Your task to perform on an android device: What's on my calendar tomorrow? Image 0: 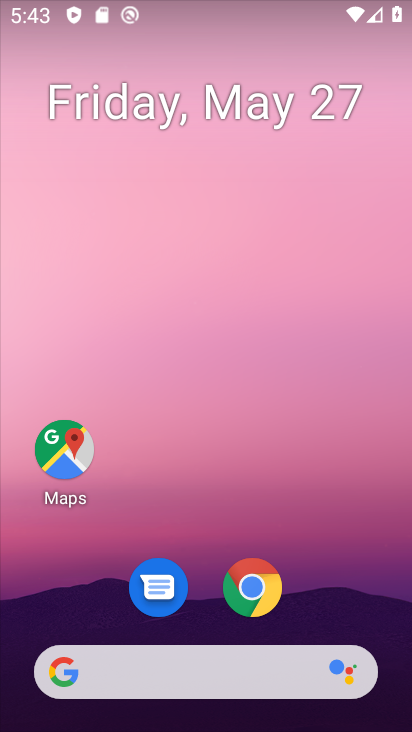
Step 0: drag from (306, 629) to (356, 19)
Your task to perform on an android device: What's on my calendar tomorrow? Image 1: 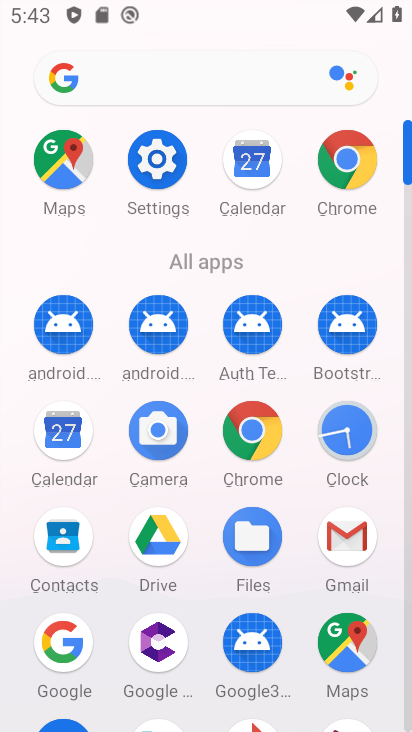
Step 1: click (80, 429)
Your task to perform on an android device: What's on my calendar tomorrow? Image 2: 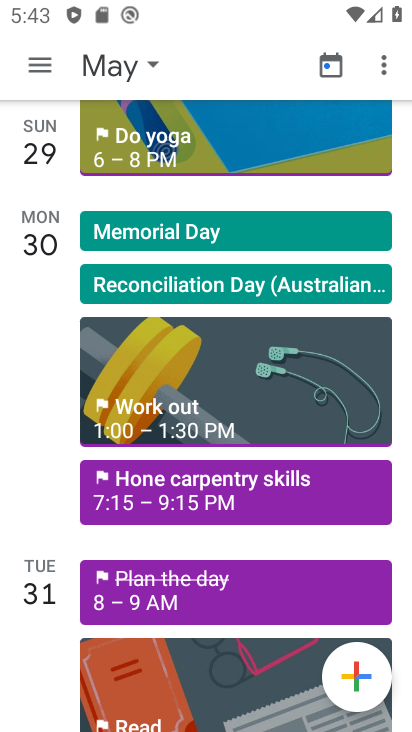
Step 2: click (109, 54)
Your task to perform on an android device: What's on my calendar tomorrow? Image 3: 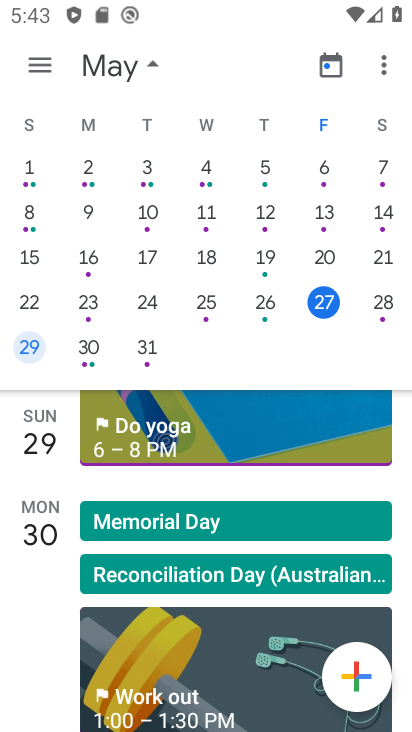
Step 3: click (394, 300)
Your task to perform on an android device: What's on my calendar tomorrow? Image 4: 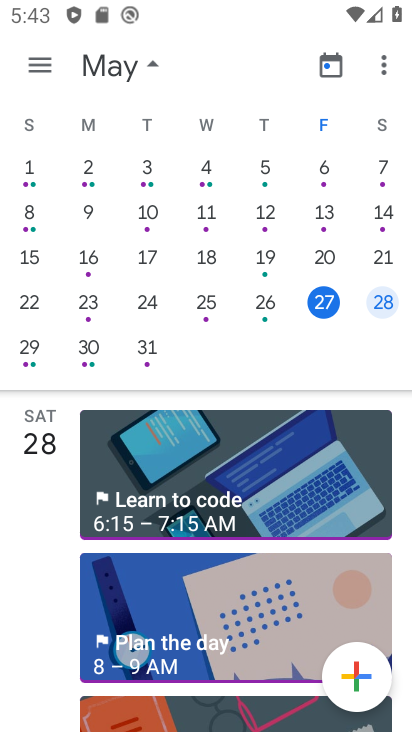
Step 4: task complete